Your task to perform on an android device: uninstall "Etsy: Buy & Sell Unique Items" Image 0: 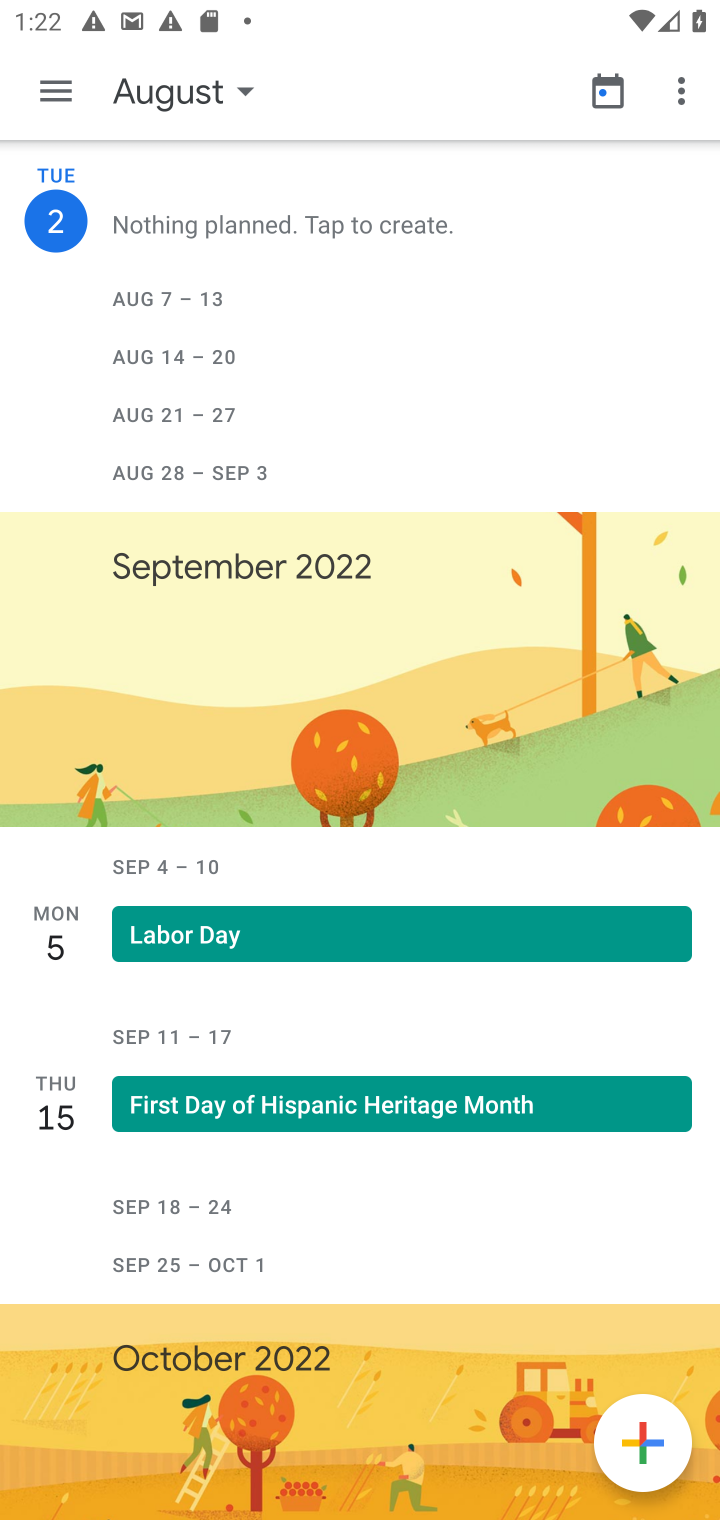
Step 0: press home button
Your task to perform on an android device: uninstall "Etsy: Buy & Sell Unique Items" Image 1: 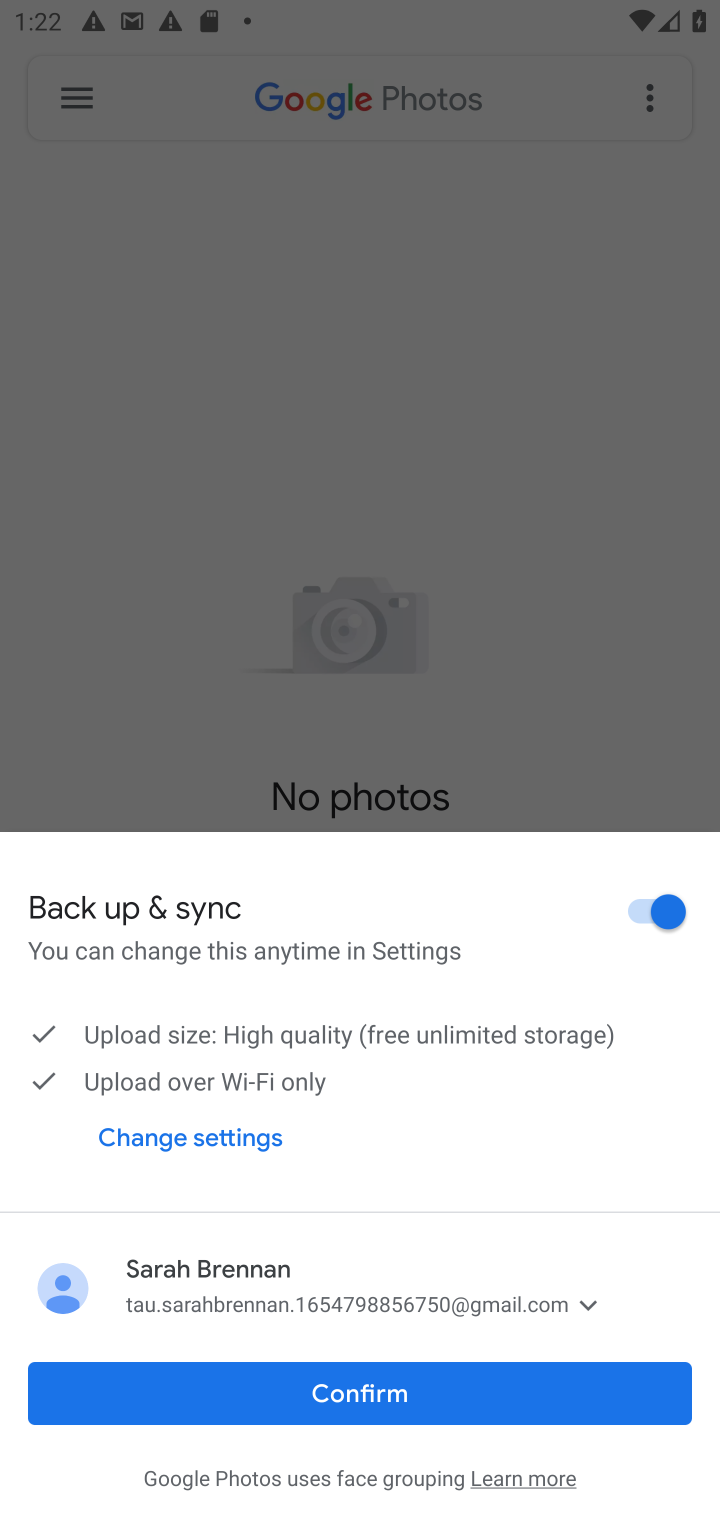
Step 1: press home button
Your task to perform on an android device: uninstall "Etsy: Buy & Sell Unique Items" Image 2: 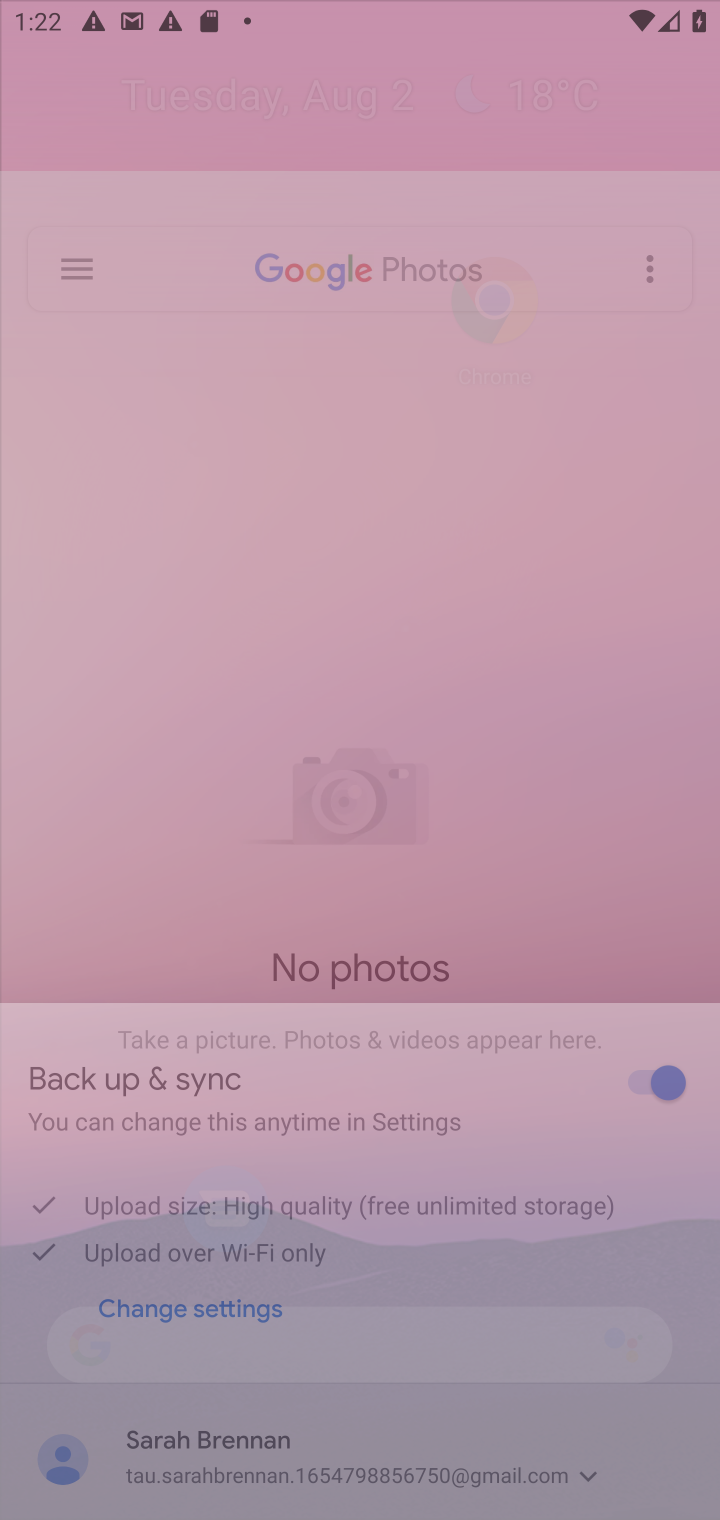
Step 2: click (256, 764)
Your task to perform on an android device: uninstall "Etsy: Buy & Sell Unique Items" Image 3: 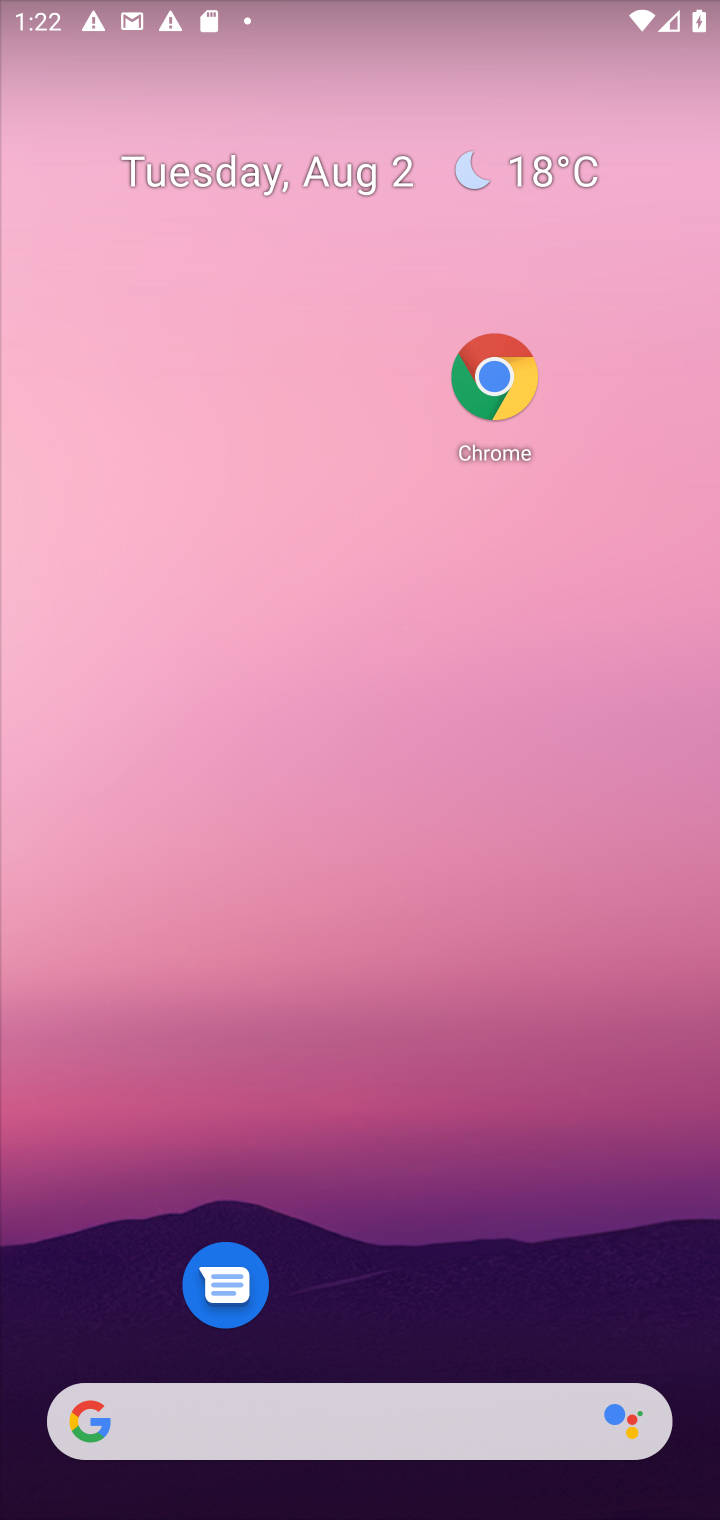
Step 3: drag from (563, 611) to (551, 238)
Your task to perform on an android device: uninstall "Etsy: Buy & Sell Unique Items" Image 4: 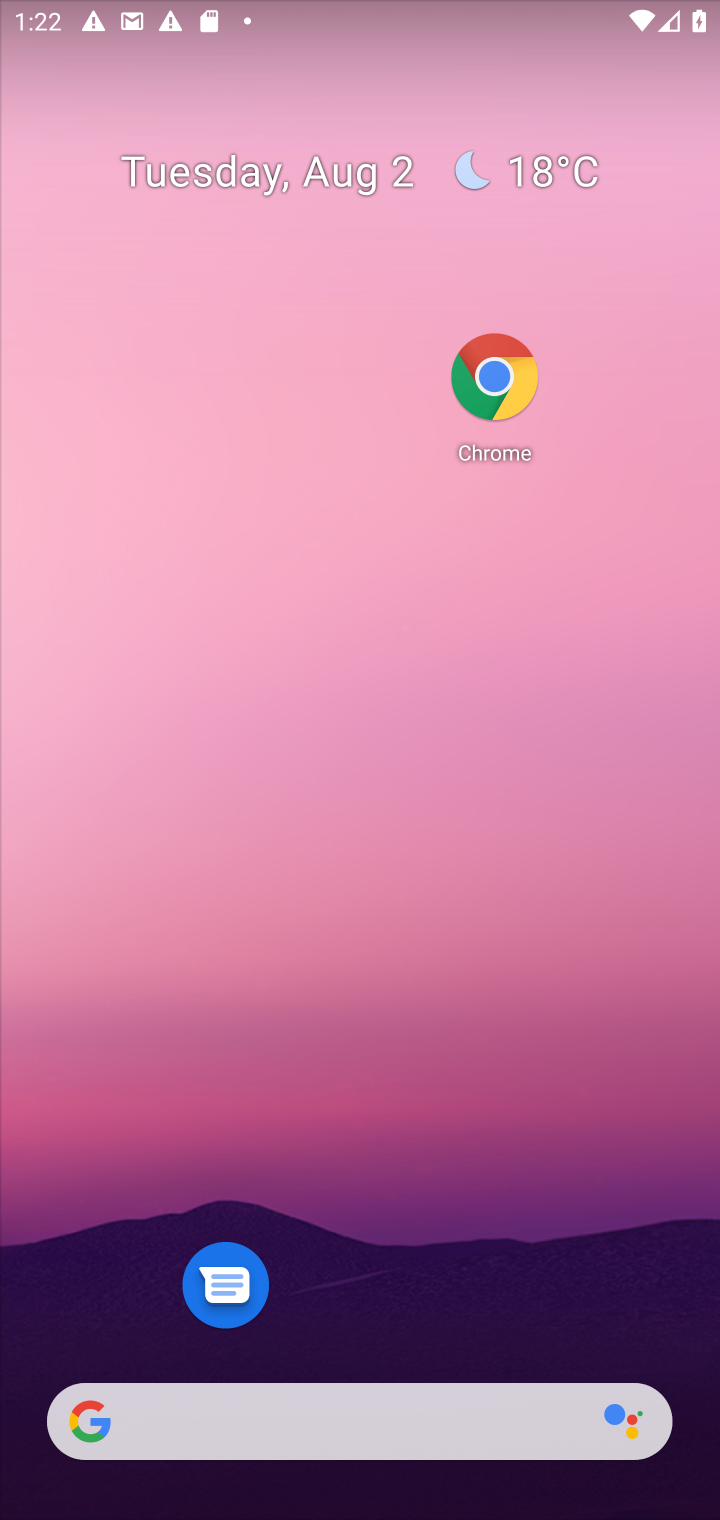
Step 4: drag from (537, 944) to (602, 10)
Your task to perform on an android device: uninstall "Etsy: Buy & Sell Unique Items" Image 5: 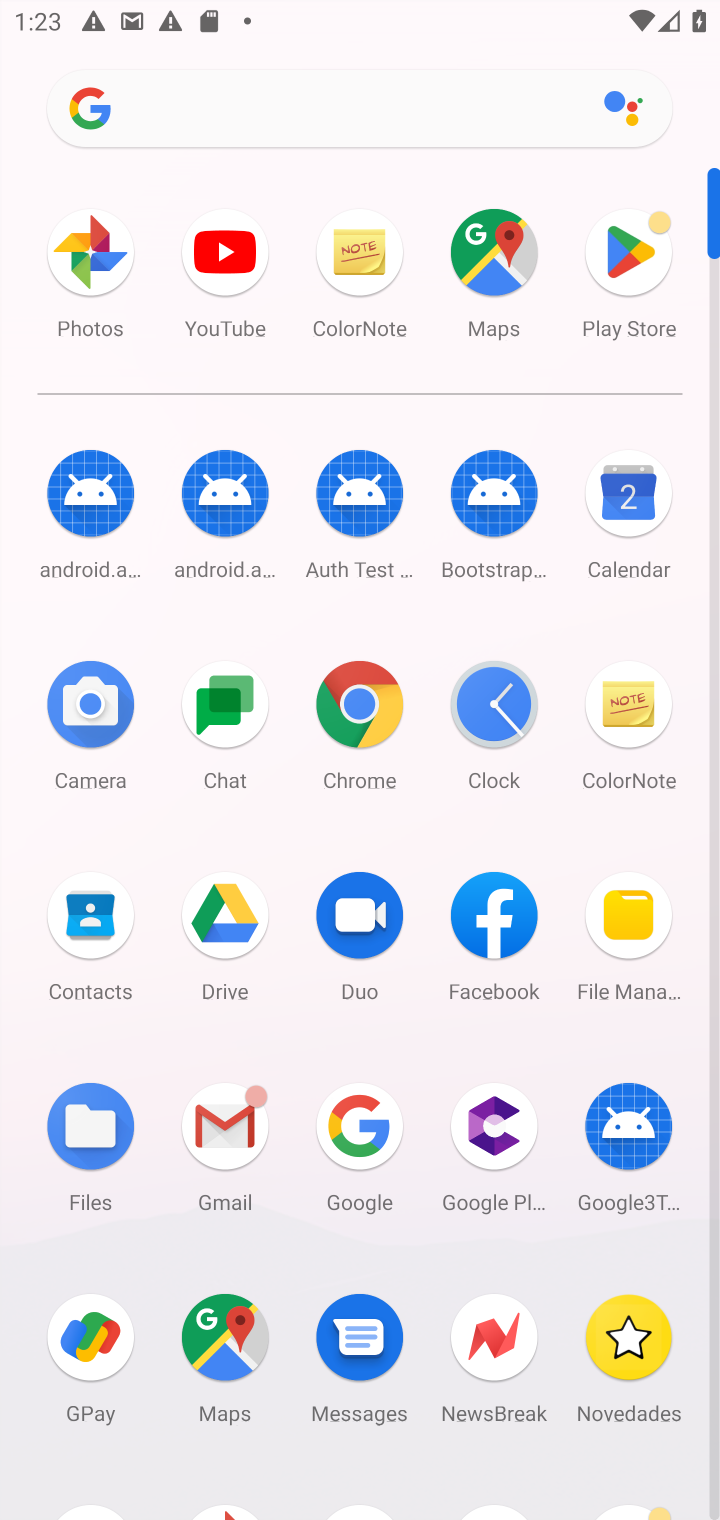
Step 5: click (627, 256)
Your task to perform on an android device: uninstall "Etsy: Buy & Sell Unique Items" Image 6: 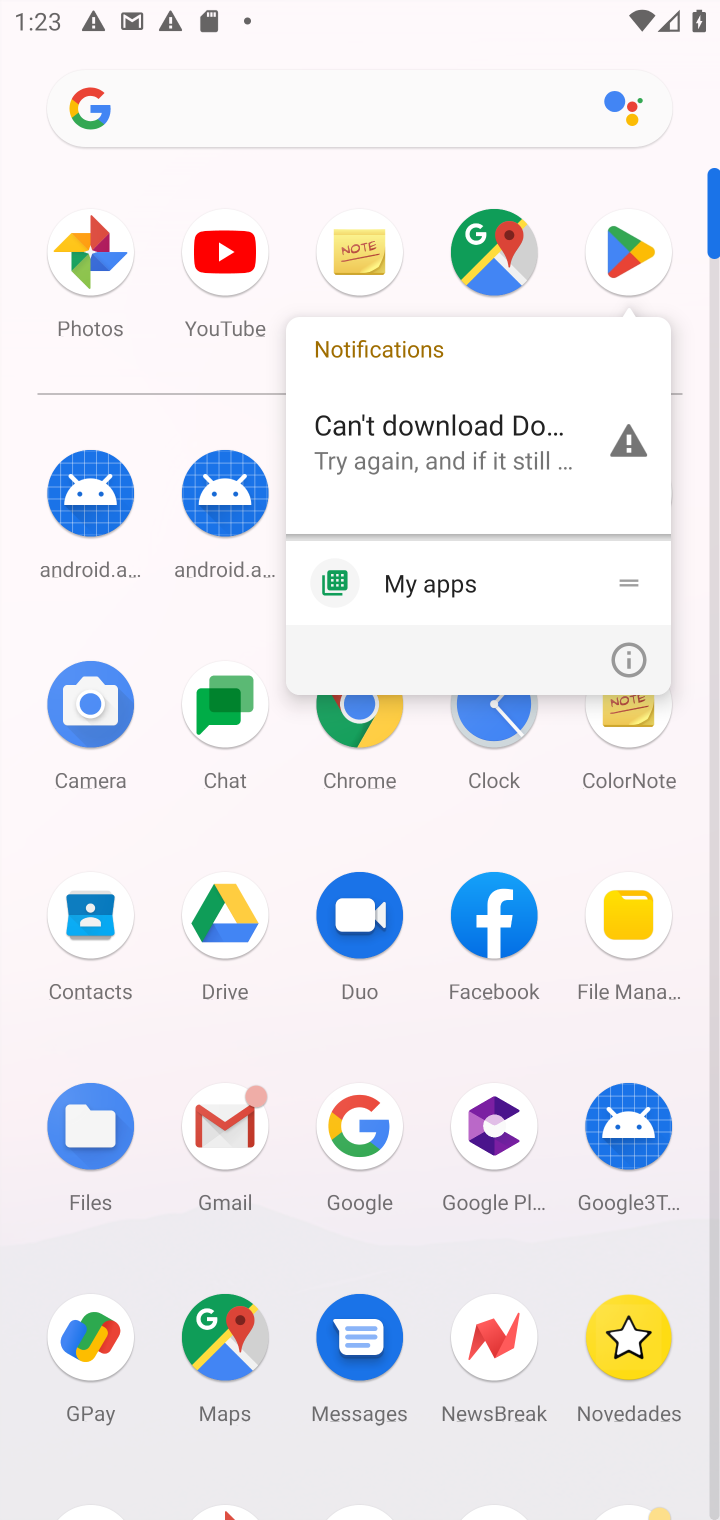
Step 6: click (627, 256)
Your task to perform on an android device: uninstall "Etsy: Buy & Sell Unique Items" Image 7: 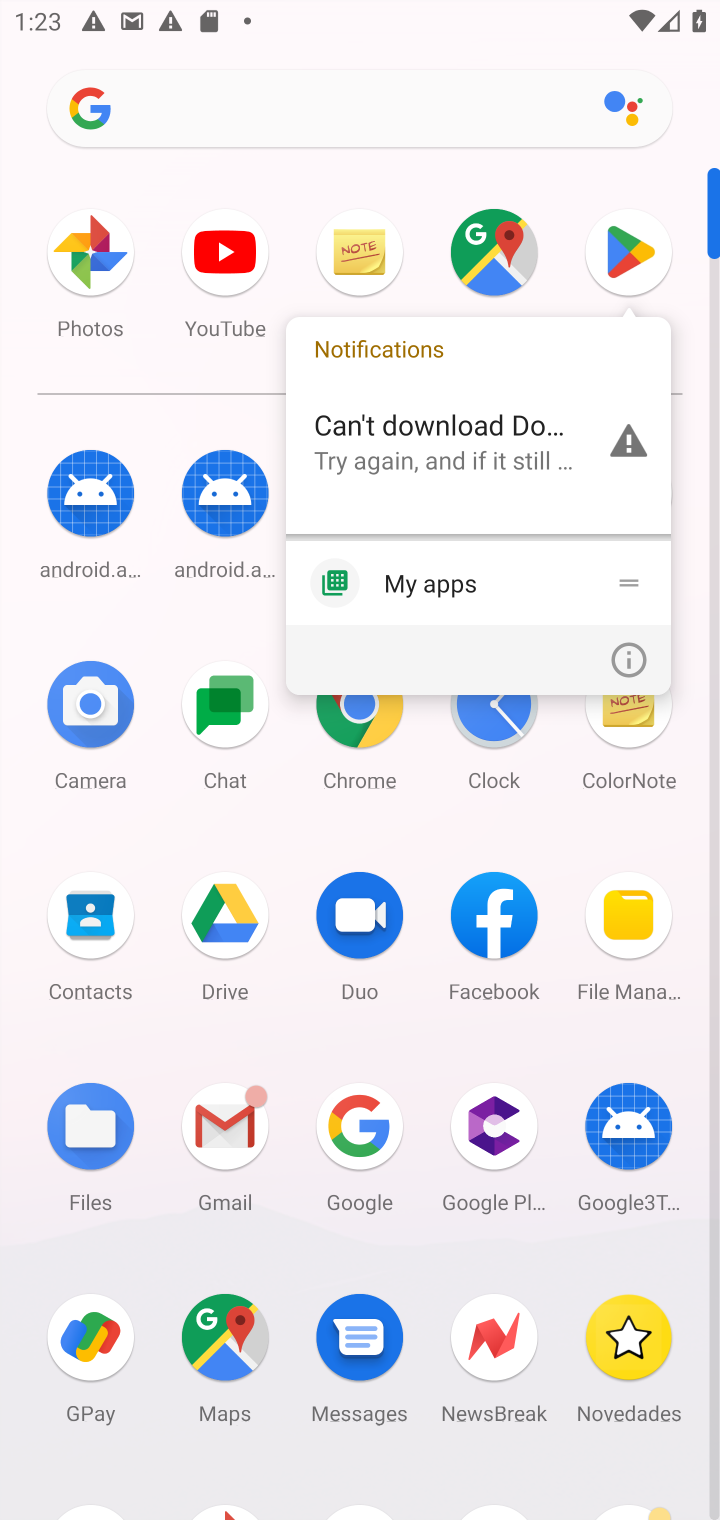
Step 7: click (627, 256)
Your task to perform on an android device: uninstall "Etsy: Buy & Sell Unique Items" Image 8: 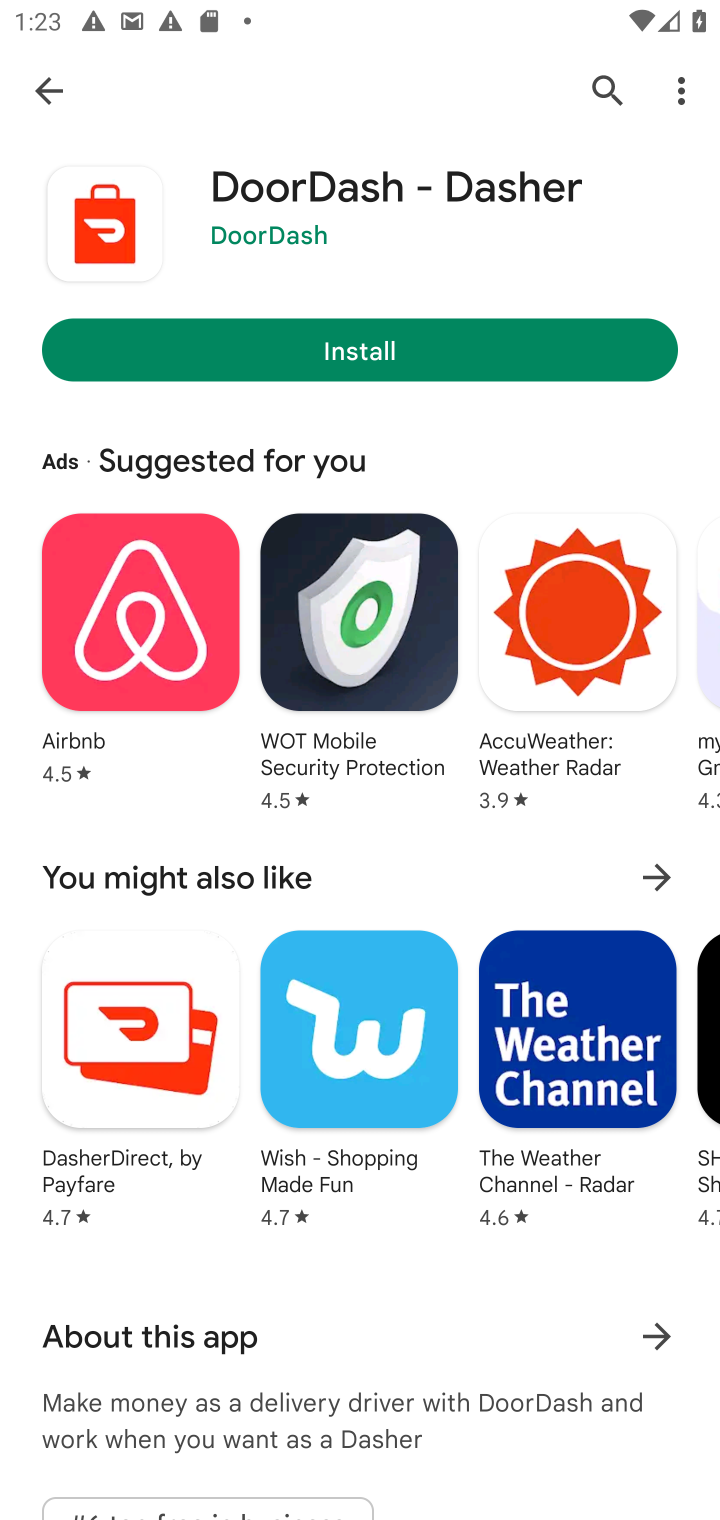
Step 8: click (614, 73)
Your task to perform on an android device: uninstall "Etsy: Buy & Sell Unique Items" Image 9: 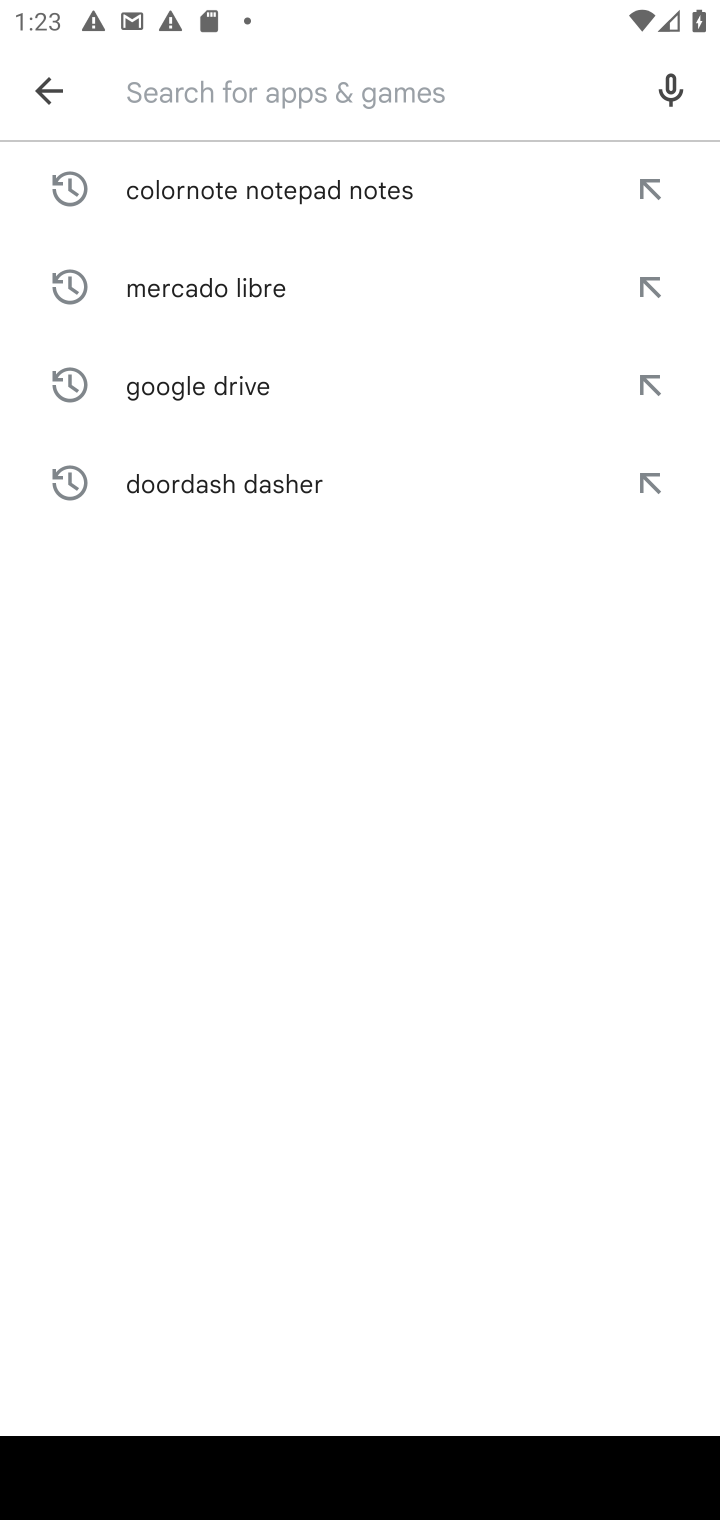
Step 9: type "Etsy: Buy & Sell Unique Items"
Your task to perform on an android device: uninstall "Etsy: Buy & Sell Unique Items" Image 10: 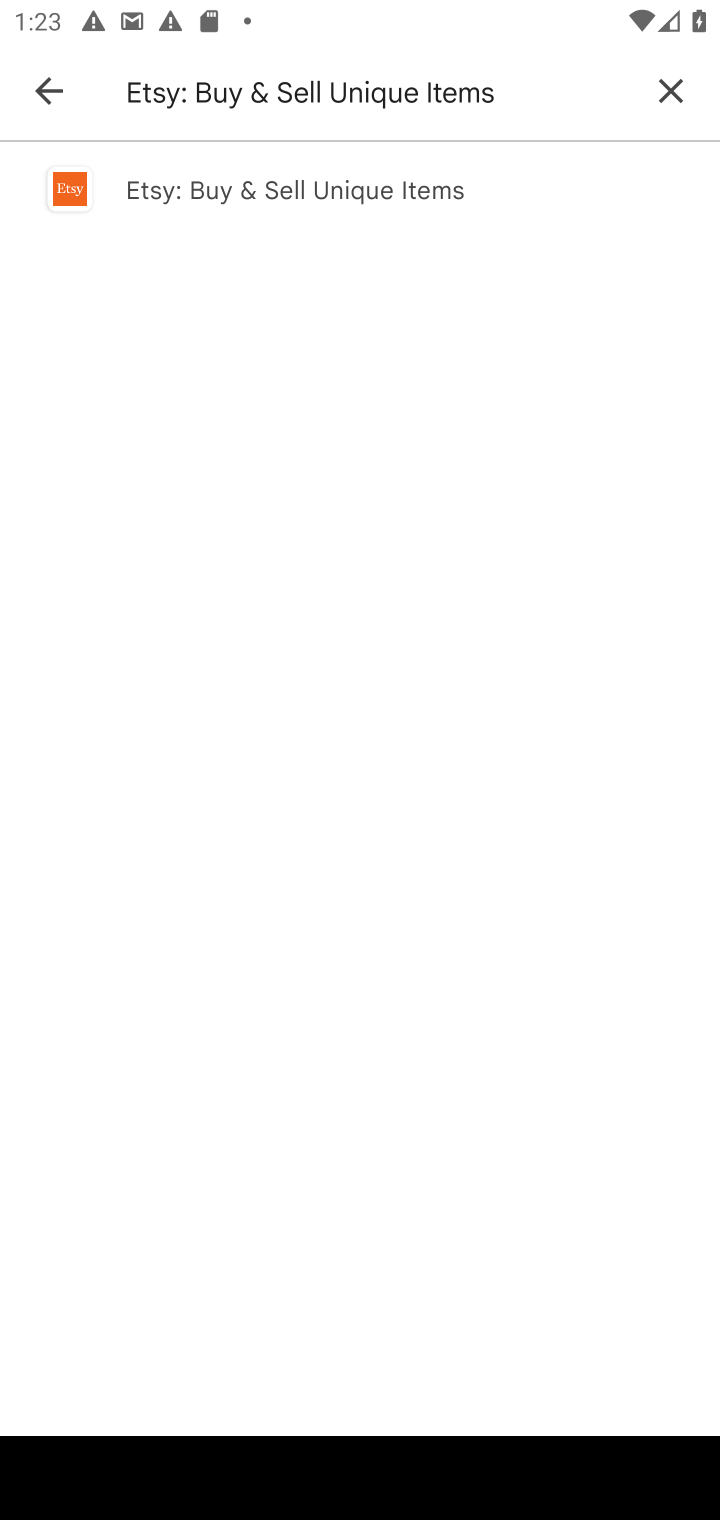
Step 10: click (129, 203)
Your task to perform on an android device: uninstall "Etsy: Buy & Sell Unique Items" Image 11: 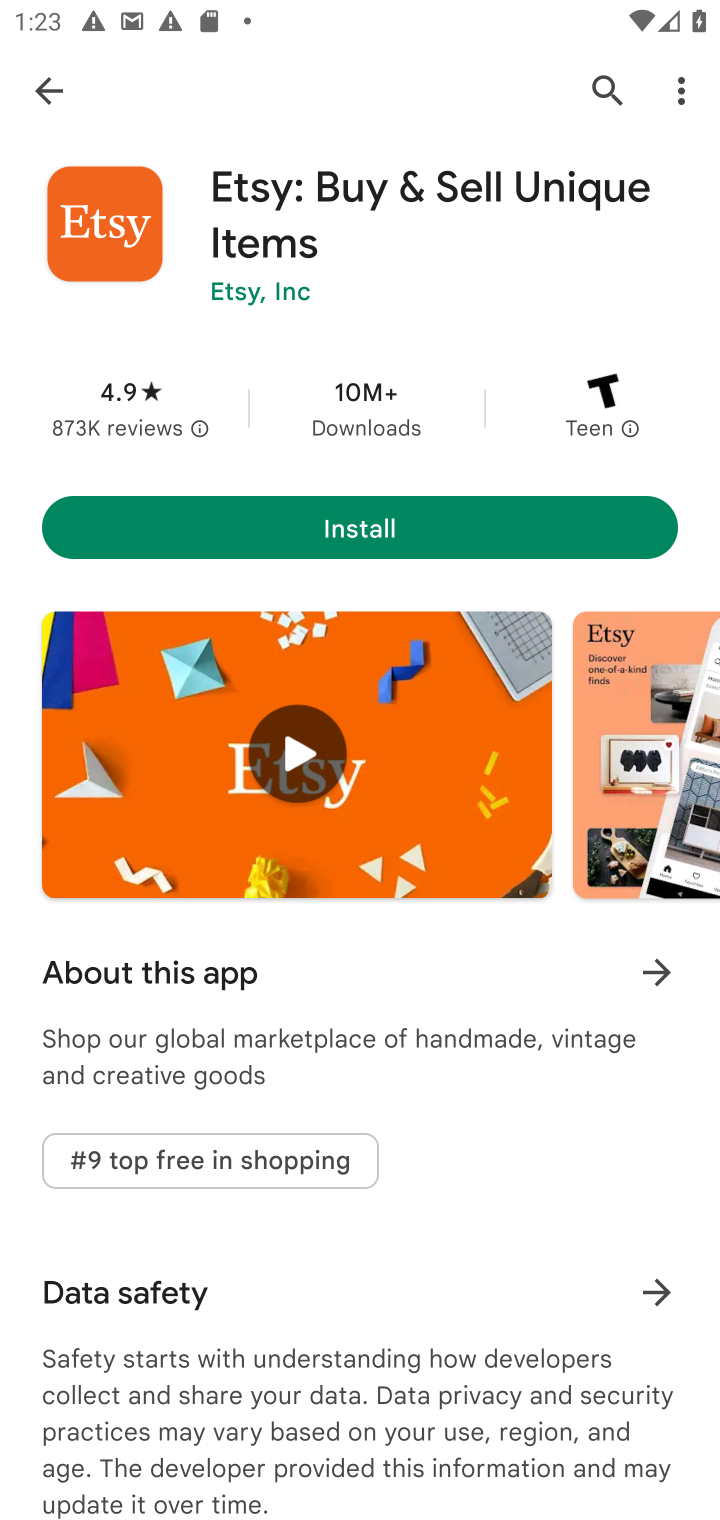
Step 11: task complete